Your task to perform on an android device: open app "The Home Depot" (install if not already installed) Image 0: 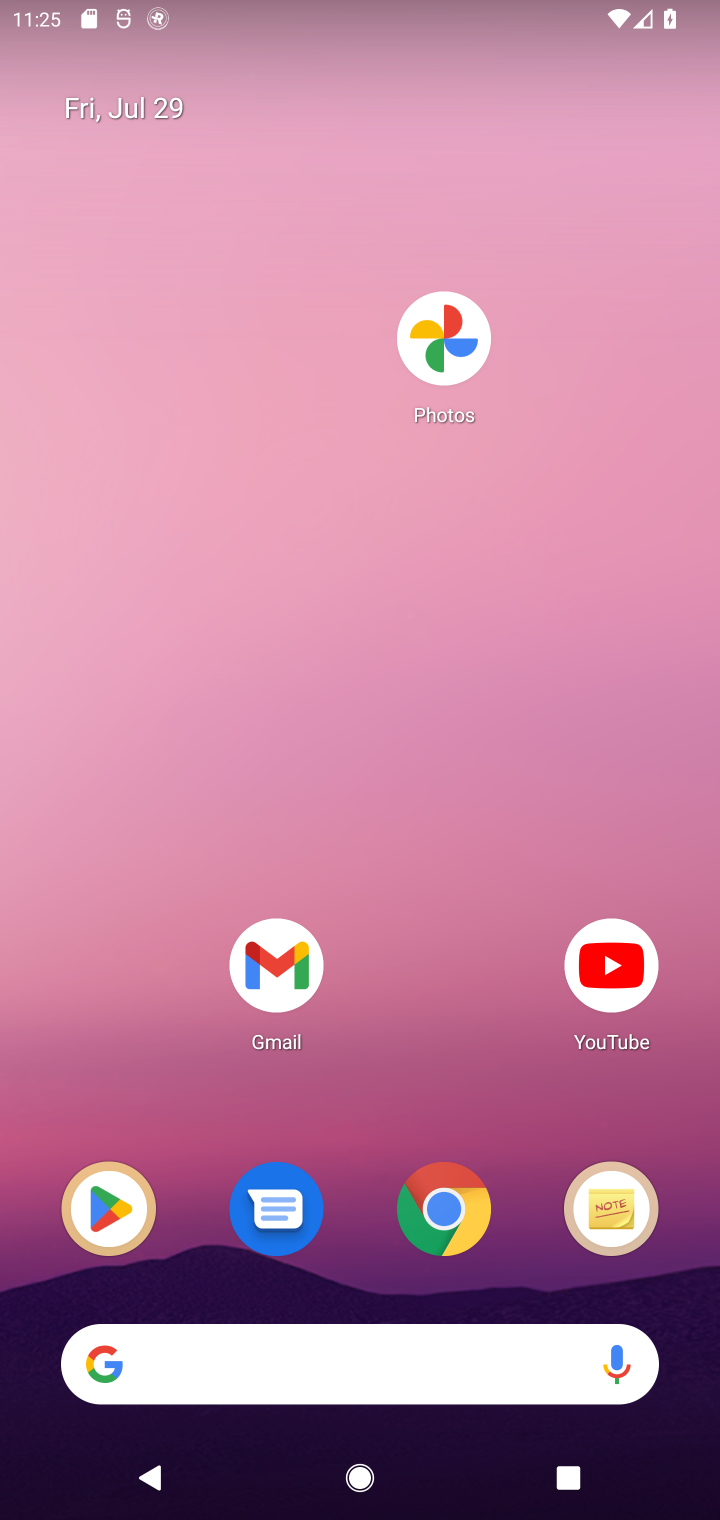
Step 0: drag from (437, 1049) to (513, 12)
Your task to perform on an android device: open app "The Home Depot" (install if not already installed) Image 1: 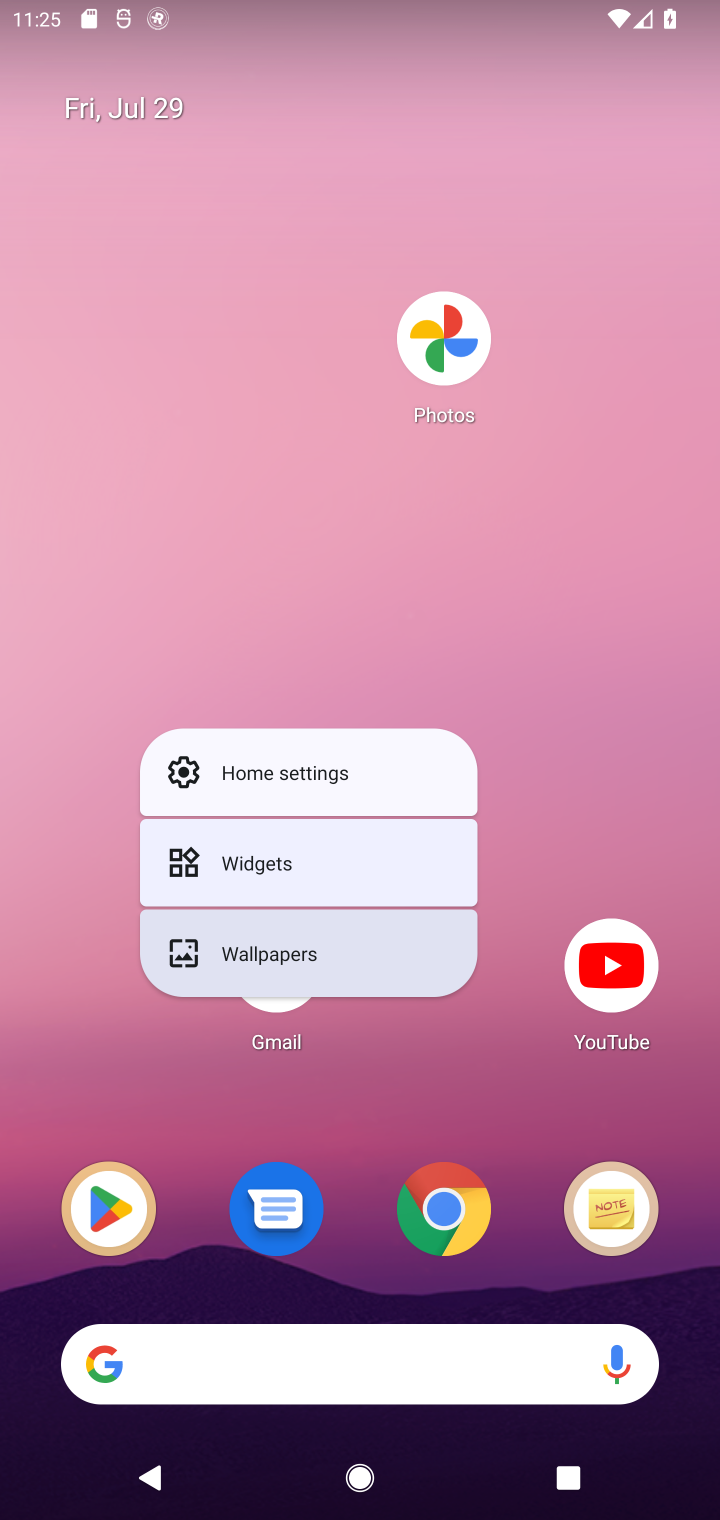
Step 1: click (459, 1074)
Your task to perform on an android device: open app "The Home Depot" (install if not already installed) Image 2: 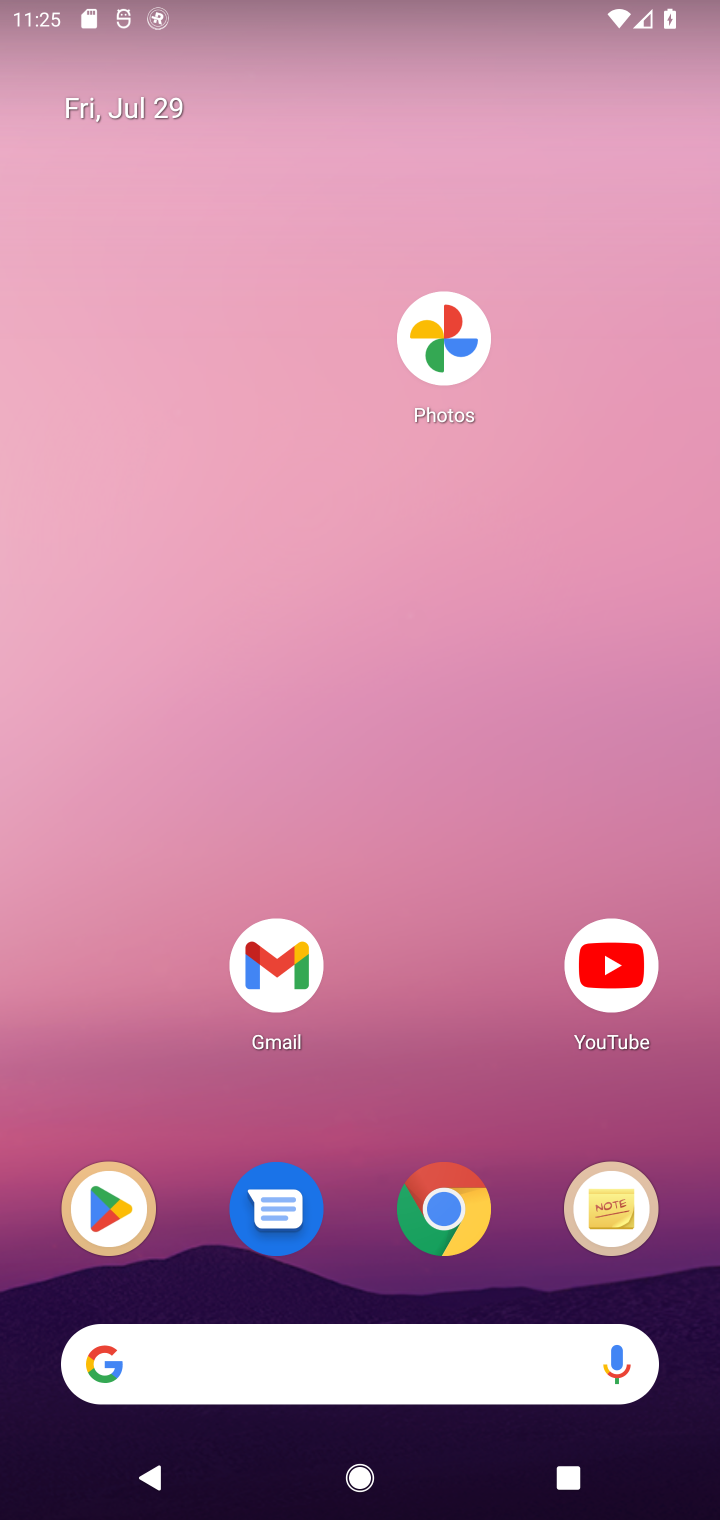
Step 2: drag from (426, 954) to (441, 0)
Your task to perform on an android device: open app "The Home Depot" (install if not already installed) Image 3: 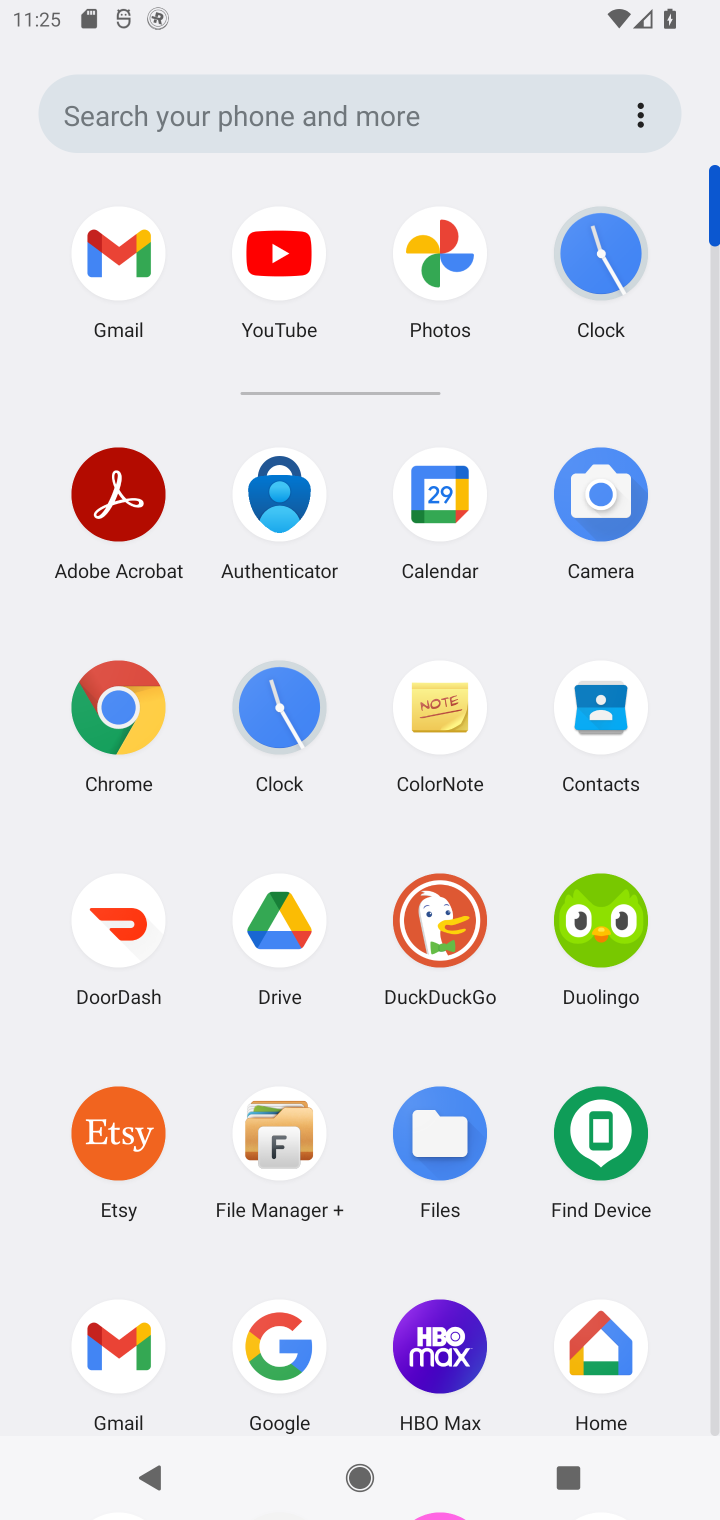
Step 3: drag from (515, 1041) to (594, 69)
Your task to perform on an android device: open app "The Home Depot" (install if not already installed) Image 4: 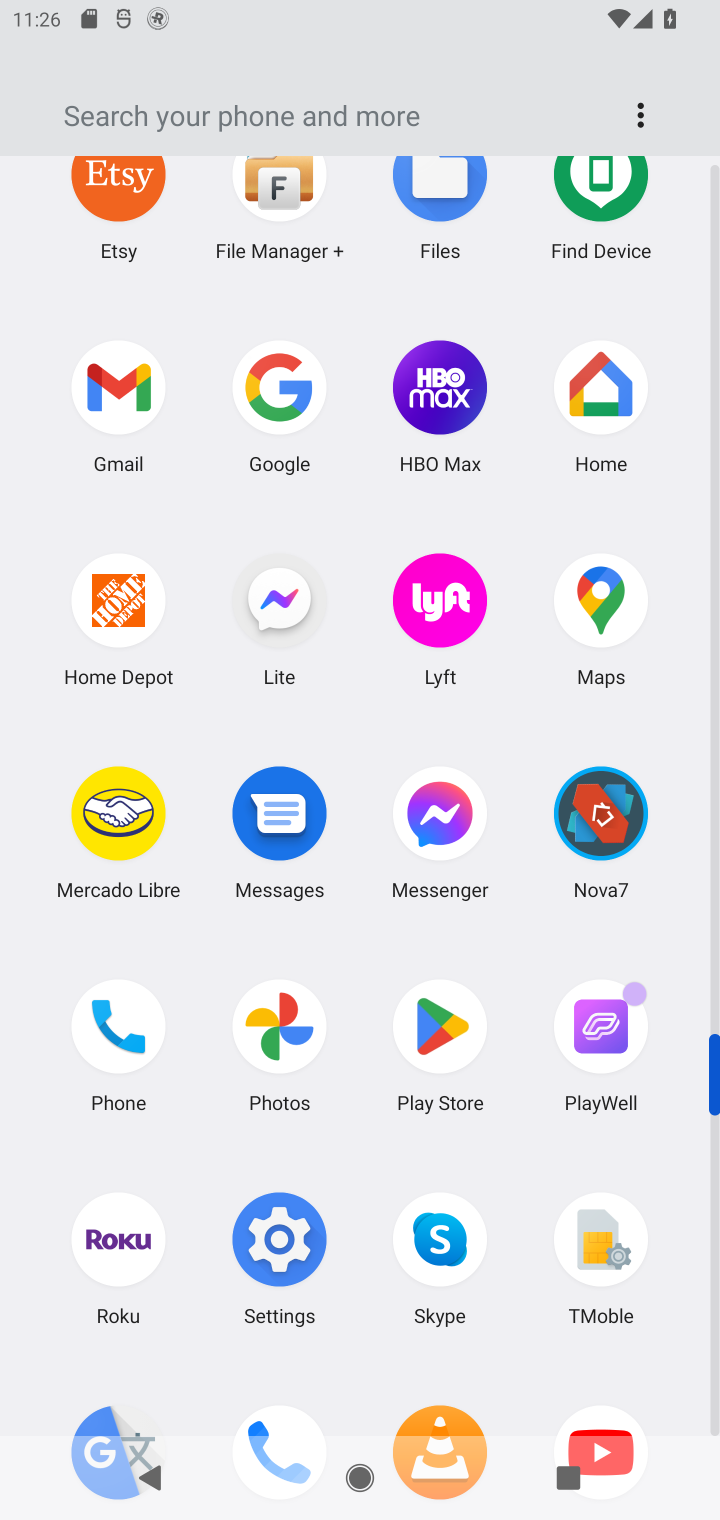
Step 4: click (426, 1020)
Your task to perform on an android device: open app "The Home Depot" (install if not already installed) Image 5: 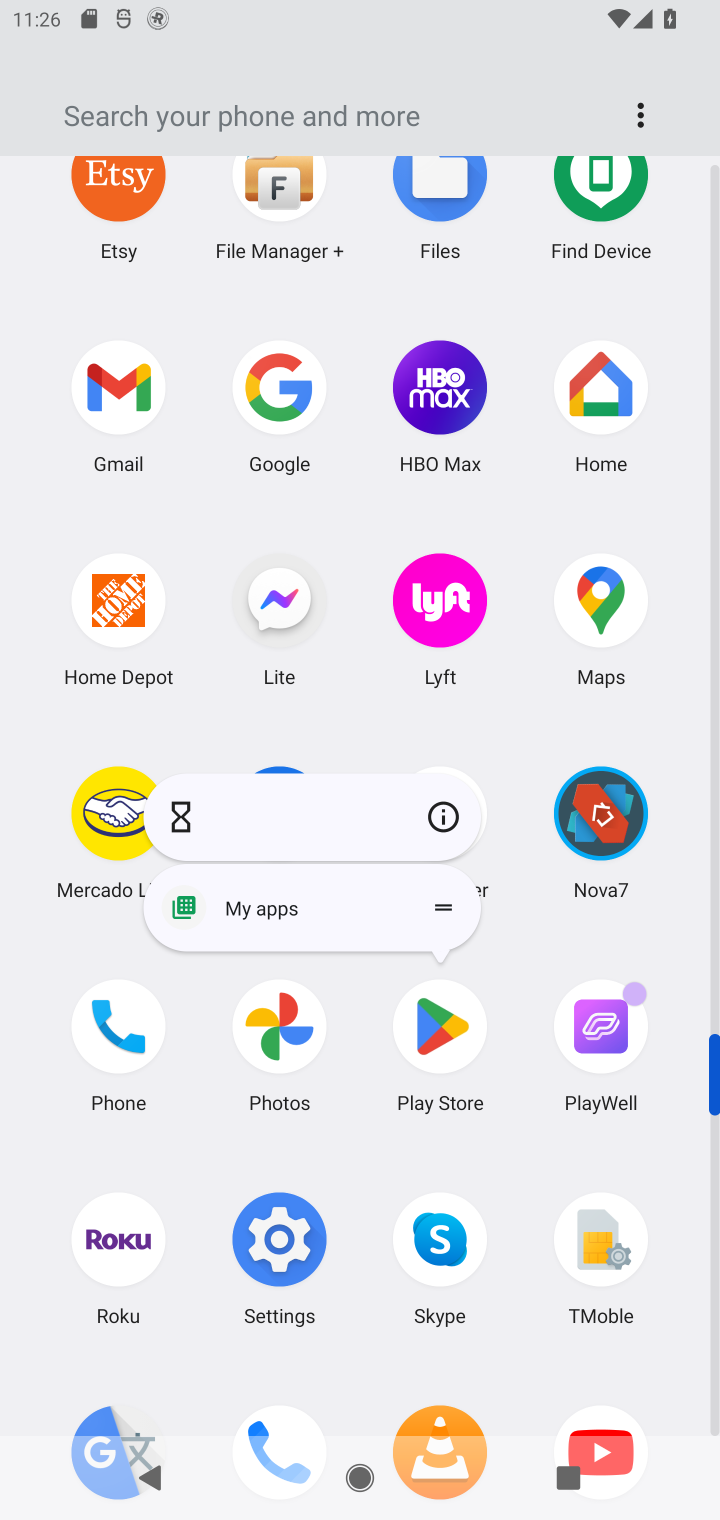
Step 5: click (433, 1018)
Your task to perform on an android device: open app "The Home Depot" (install if not already installed) Image 6: 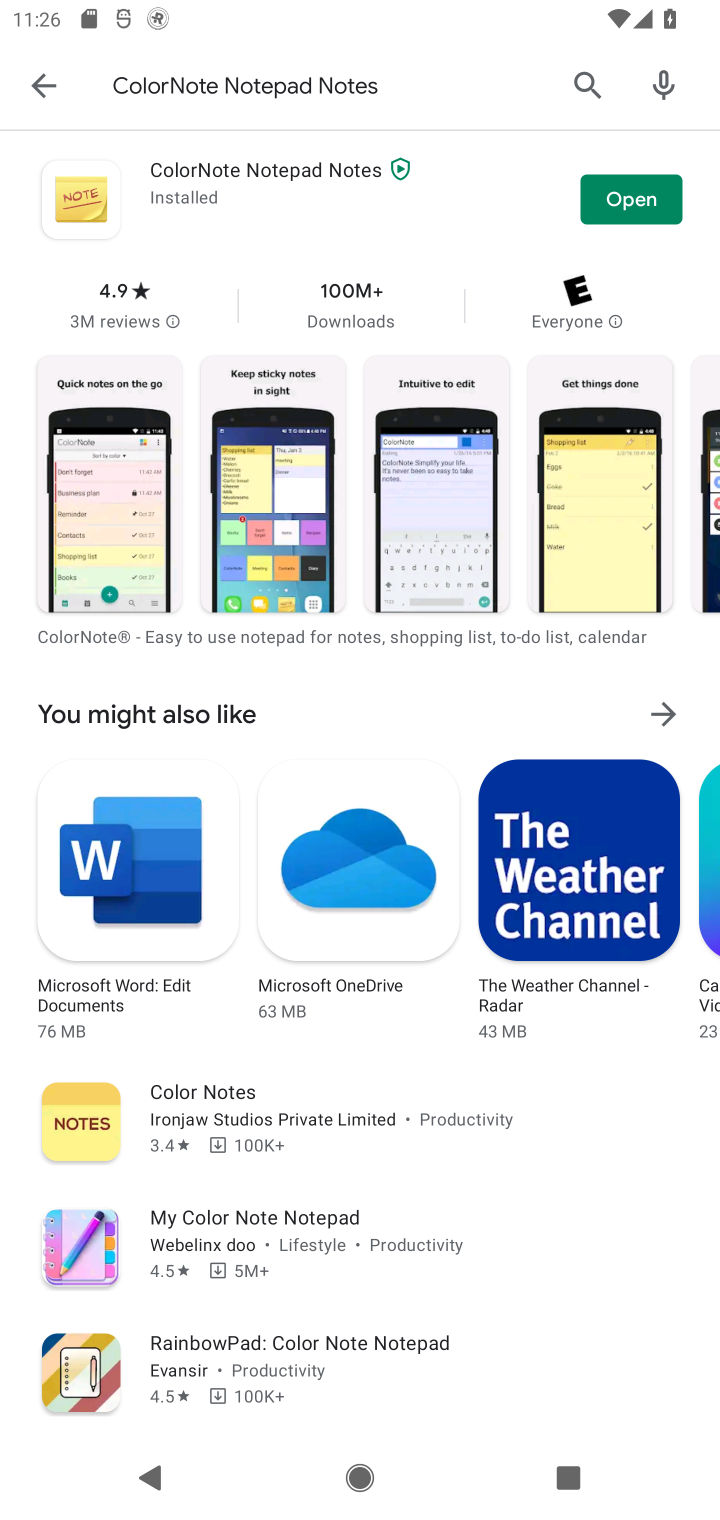
Step 6: click (515, 62)
Your task to perform on an android device: open app "The Home Depot" (install if not already installed) Image 7: 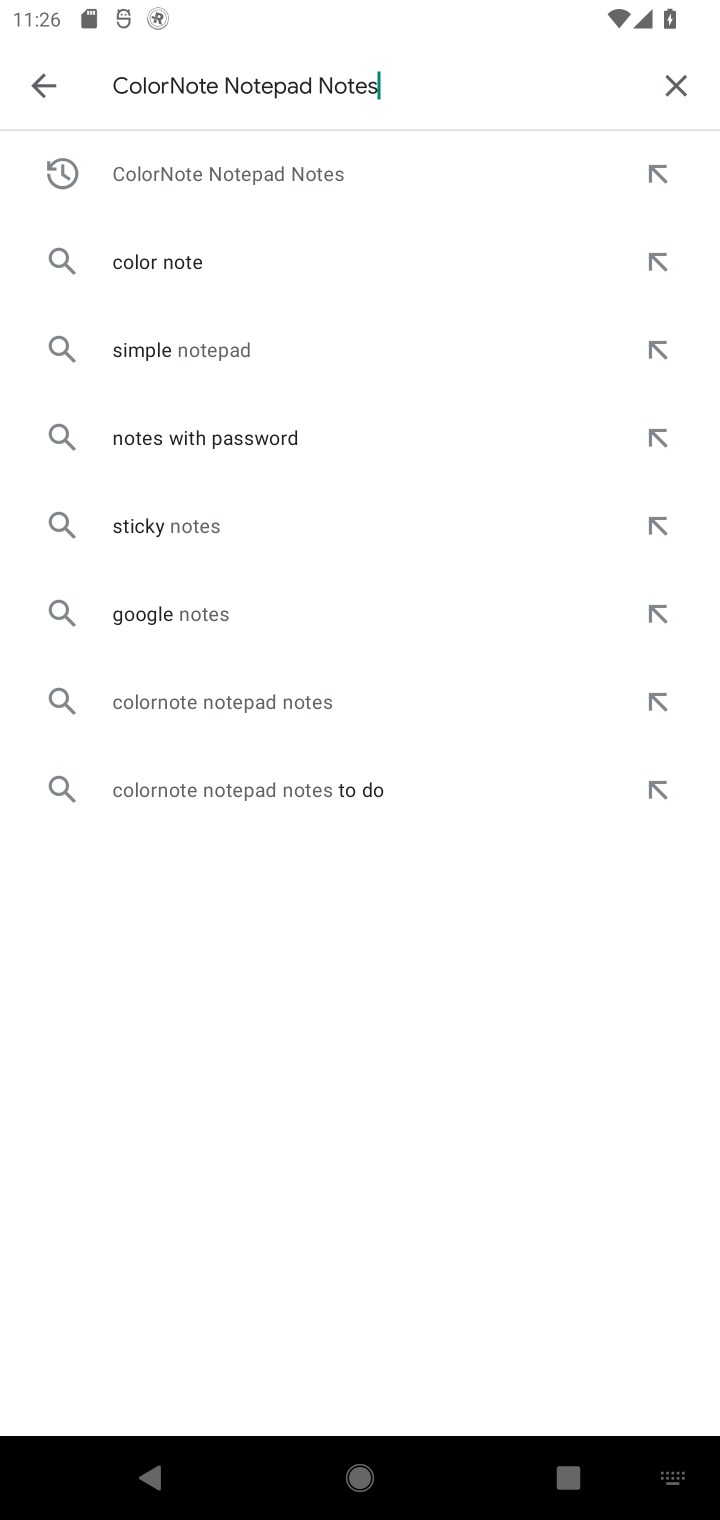
Step 7: click (681, 85)
Your task to perform on an android device: open app "The Home Depot" (install if not already installed) Image 8: 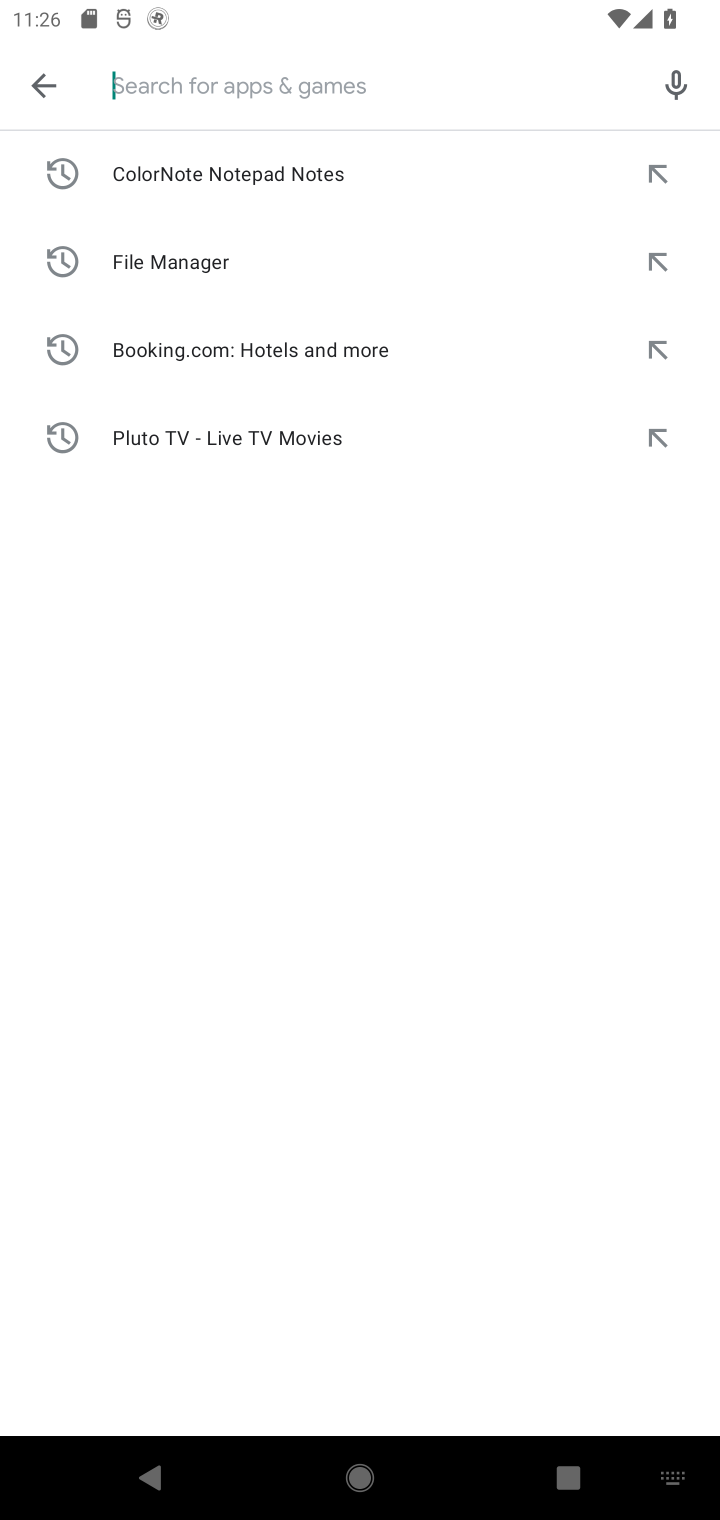
Step 8: type "the home depot"
Your task to perform on an android device: open app "The Home Depot" (install if not already installed) Image 9: 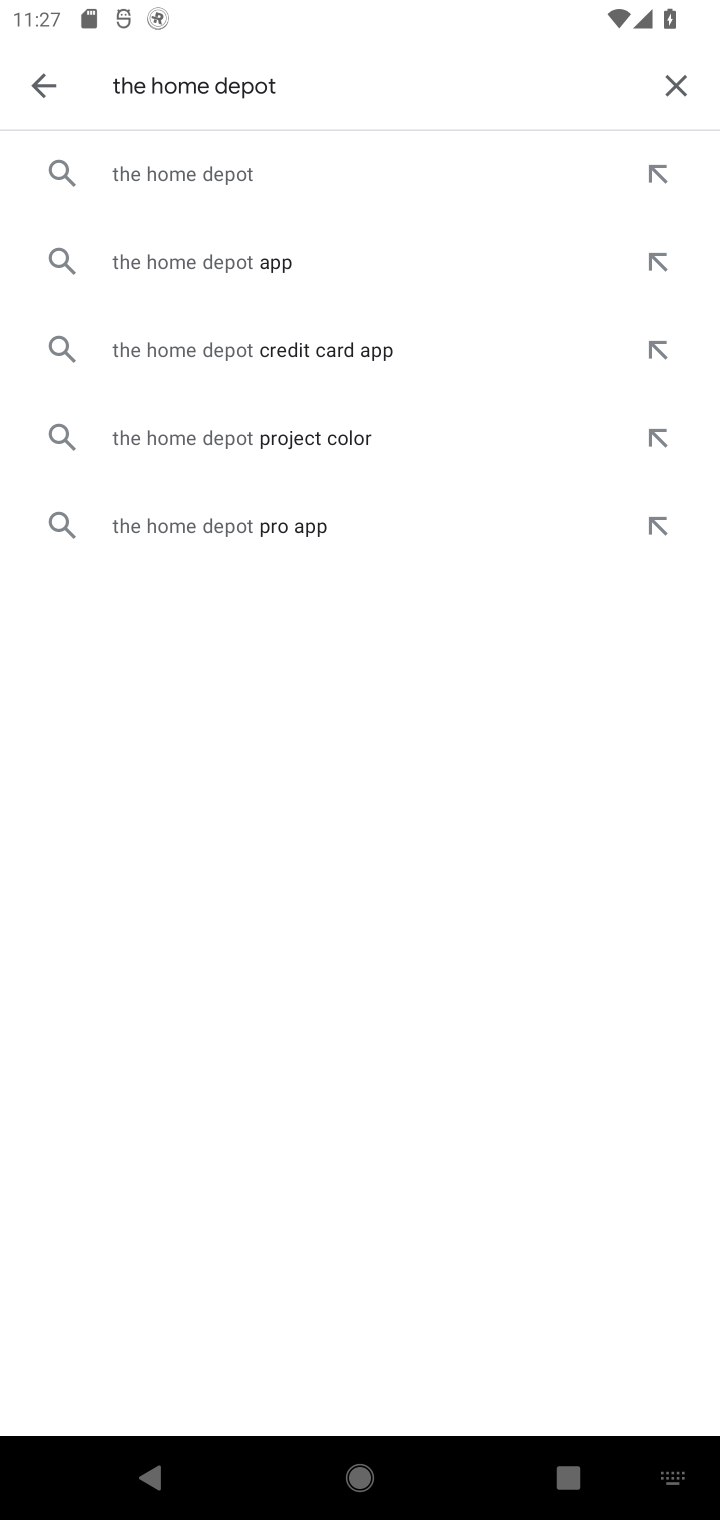
Step 9: press enter
Your task to perform on an android device: open app "The Home Depot" (install if not already installed) Image 10: 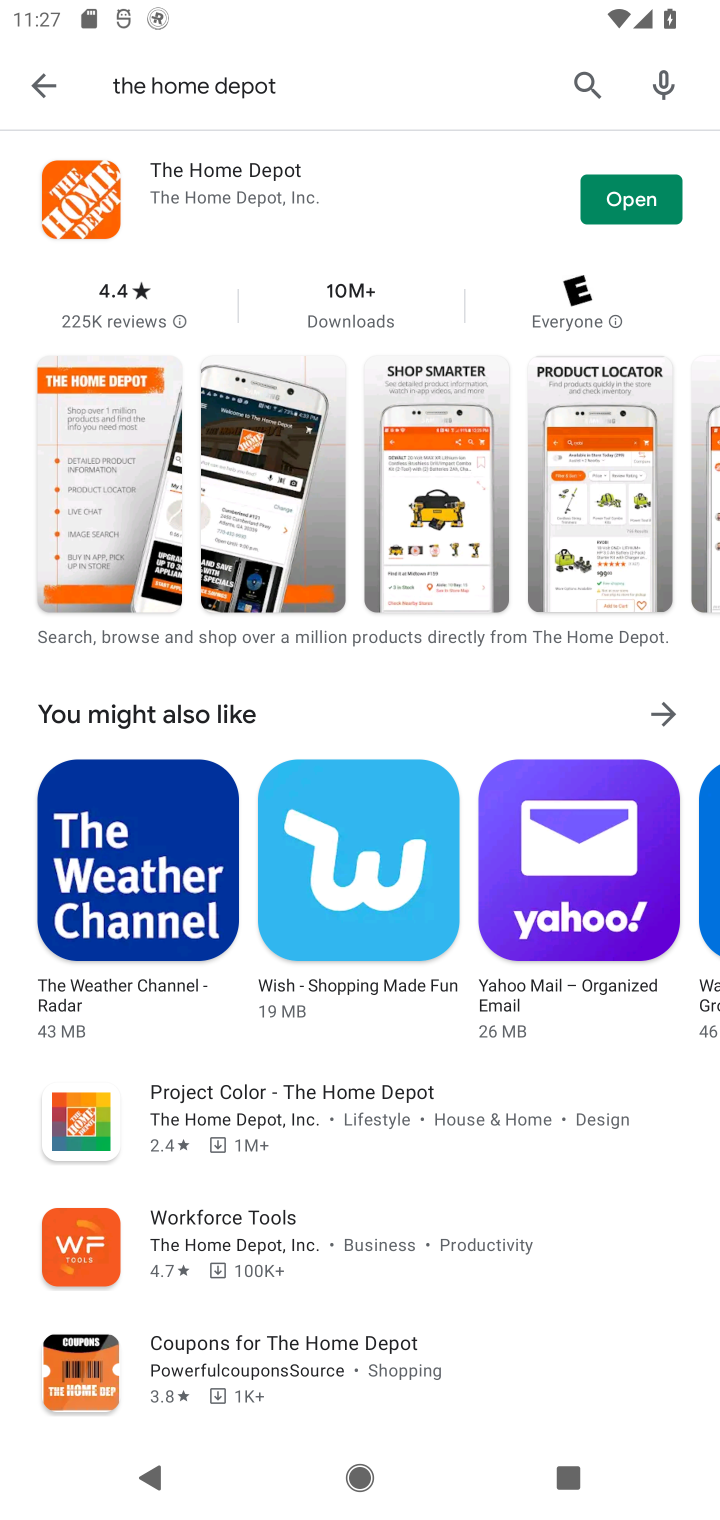
Step 10: click (673, 189)
Your task to perform on an android device: open app "The Home Depot" (install if not already installed) Image 11: 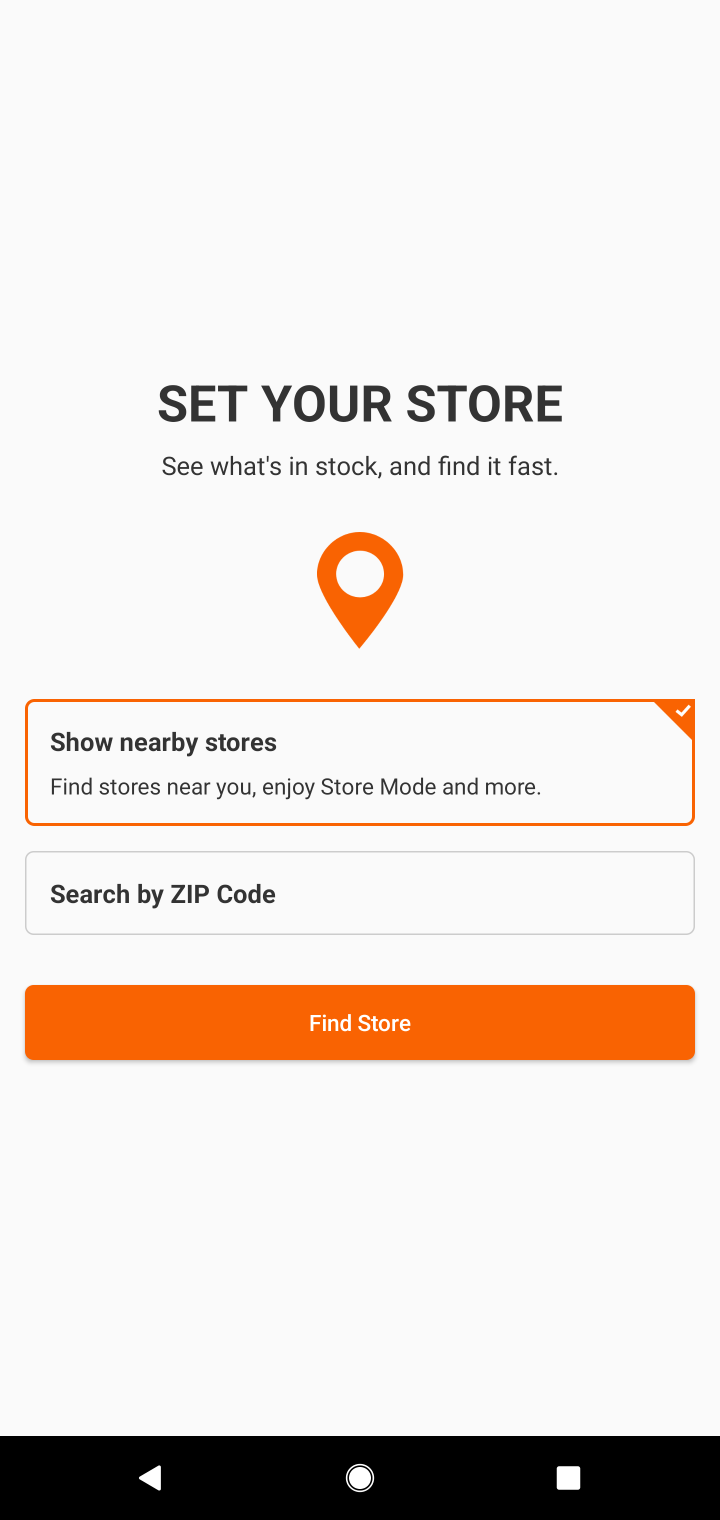
Step 11: task complete